Your task to perform on an android device: Turn off the flashlight Image 0: 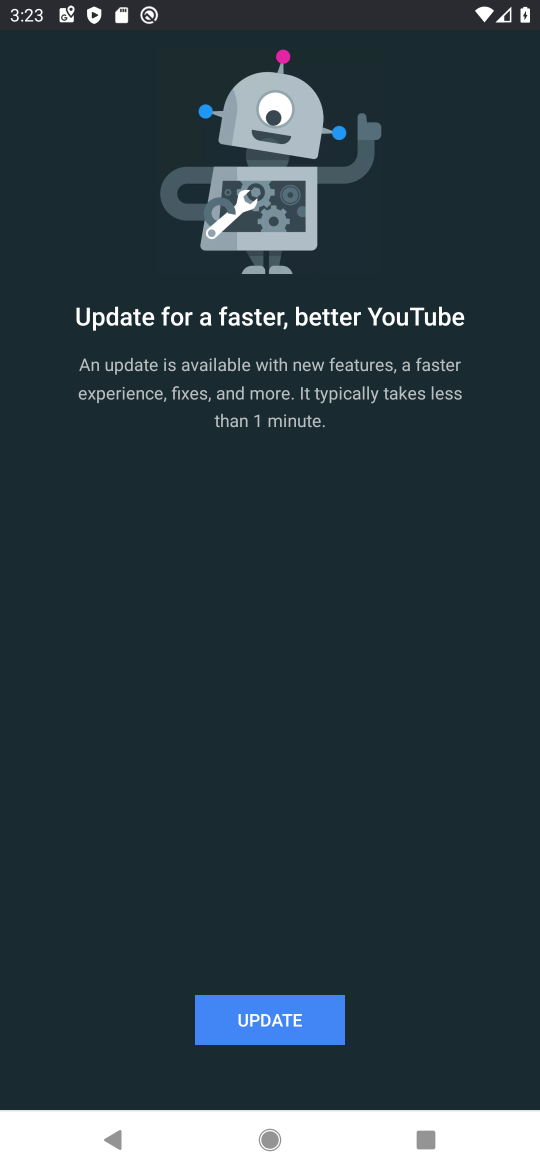
Step 0: press home button
Your task to perform on an android device: Turn off the flashlight Image 1: 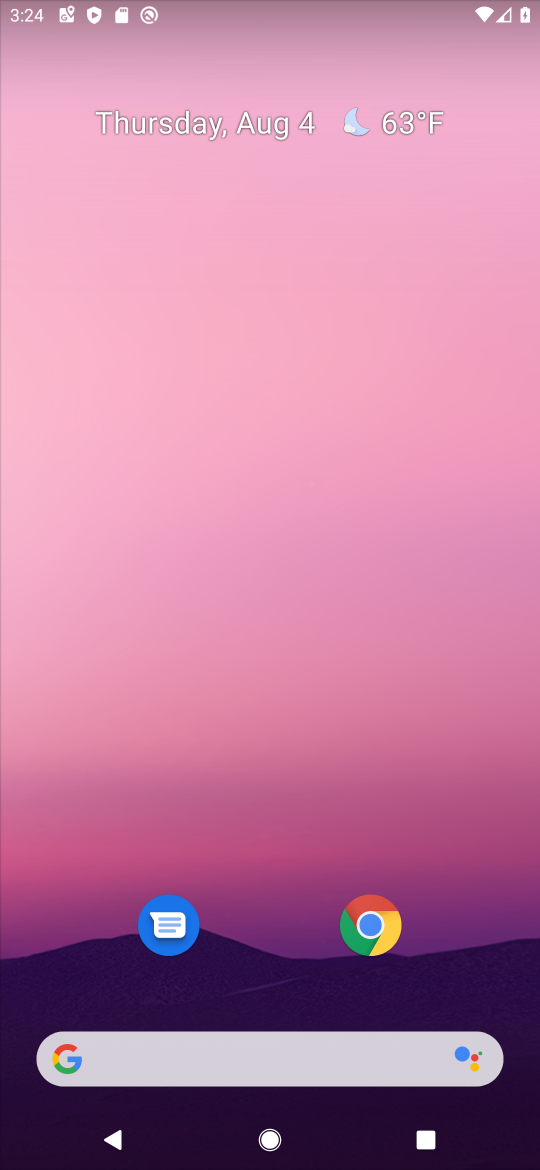
Step 1: task complete